Your task to perform on an android device: Go to accessibility settings Image 0: 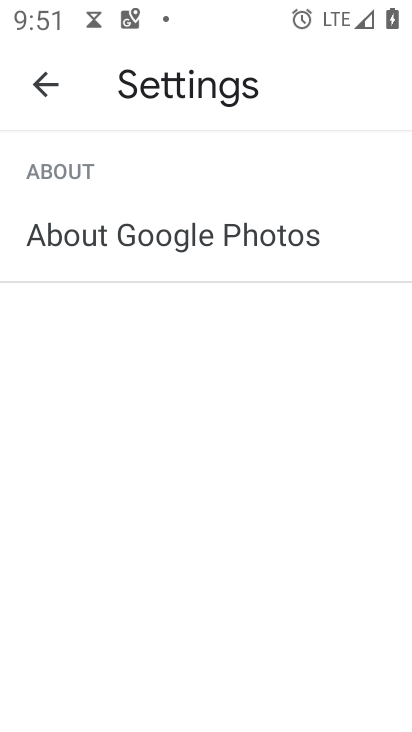
Step 0: press home button
Your task to perform on an android device: Go to accessibility settings Image 1: 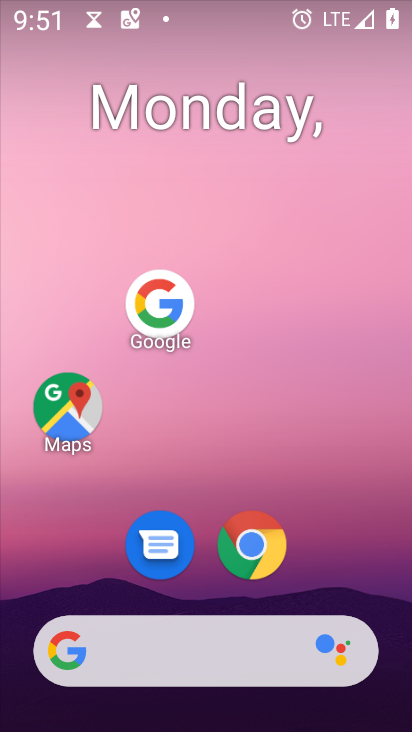
Step 1: drag from (182, 647) to (308, 181)
Your task to perform on an android device: Go to accessibility settings Image 2: 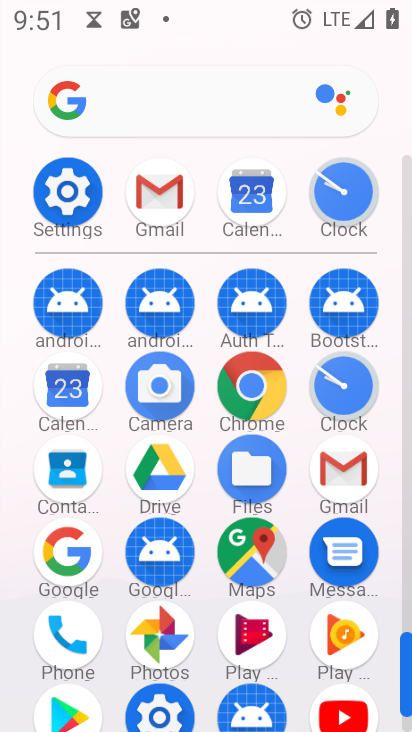
Step 2: click (68, 206)
Your task to perform on an android device: Go to accessibility settings Image 3: 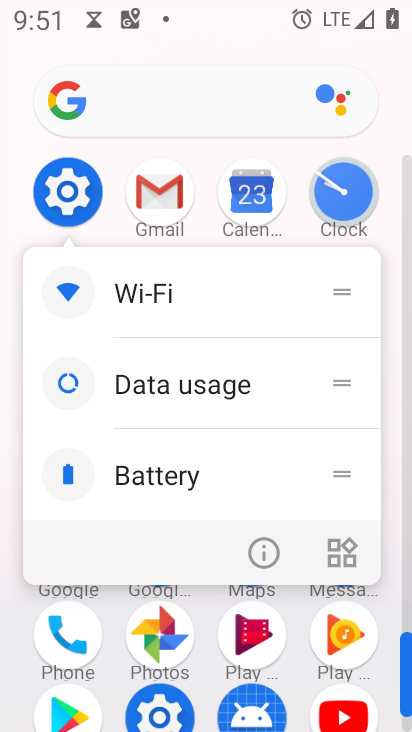
Step 3: click (75, 201)
Your task to perform on an android device: Go to accessibility settings Image 4: 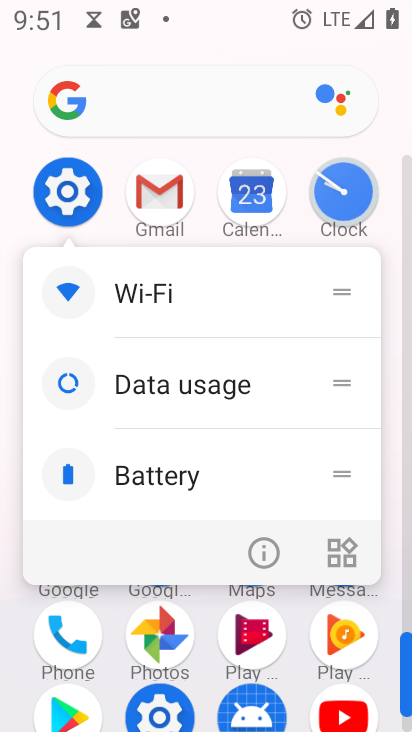
Step 4: click (69, 201)
Your task to perform on an android device: Go to accessibility settings Image 5: 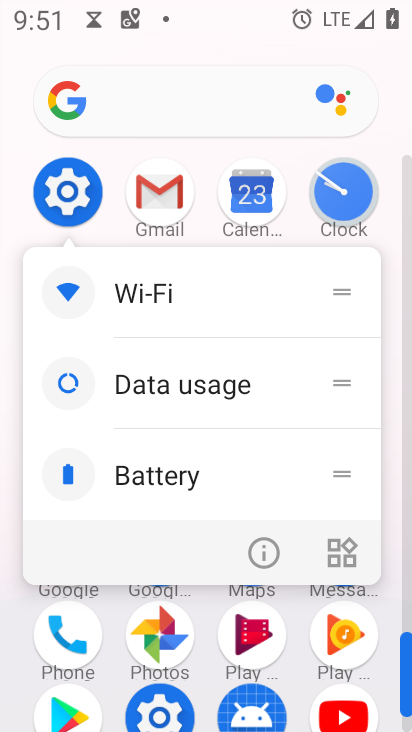
Step 5: click (64, 199)
Your task to perform on an android device: Go to accessibility settings Image 6: 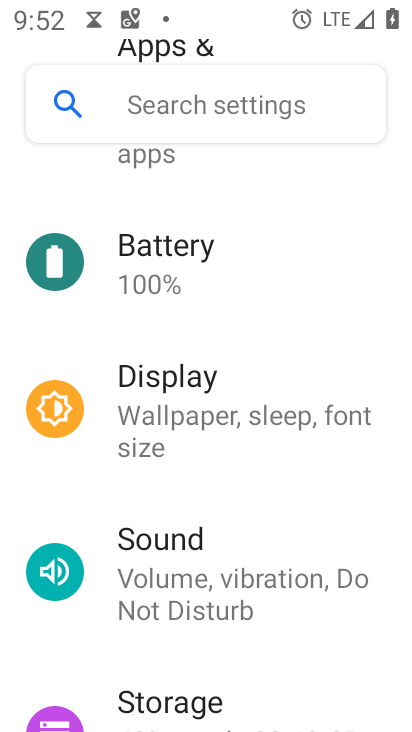
Step 6: drag from (258, 656) to (376, 139)
Your task to perform on an android device: Go to accessibility settings Image 7: 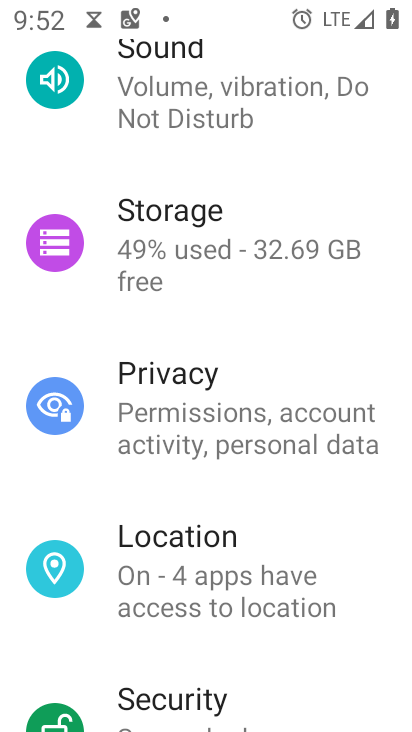
Step 7: drag from (252, 665) to (387, 83)
Your task to perform on an android device: Go to accessibility settings Image 8: 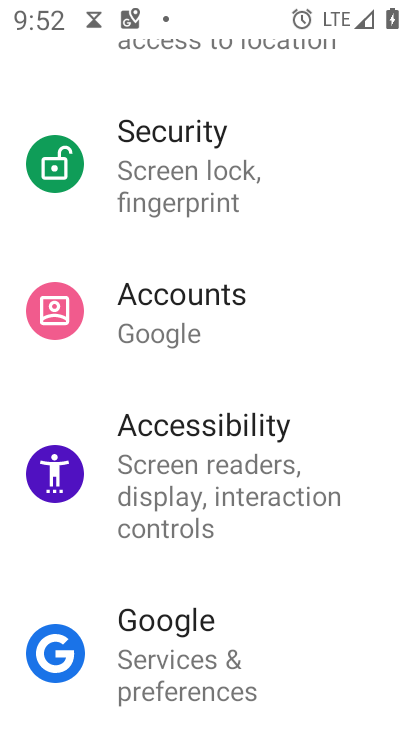
Step 8: click (181, 434)
Your task to perform on an android device: Go to accessibility settings Image 9: 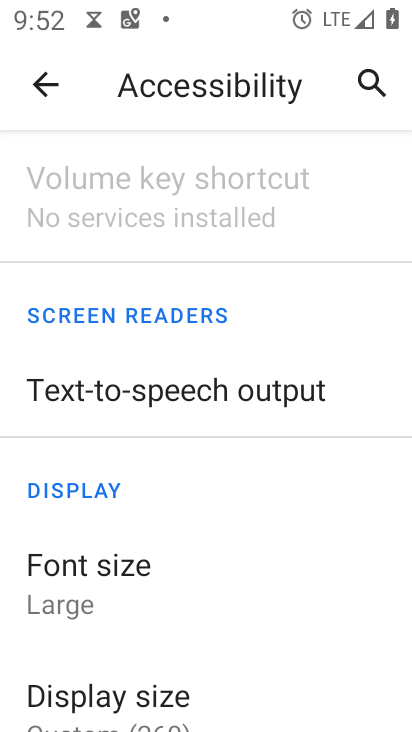
Step 9: task complete